Your task to perform on an android device: Open Youtube and go to the subscriptions tab Image 0: 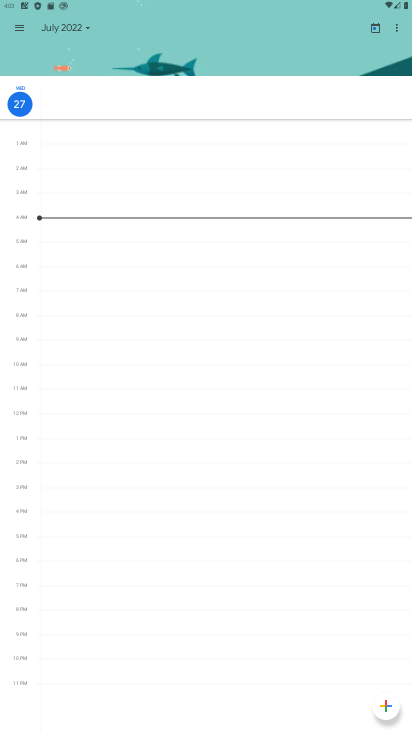
Step 0: press home button
Your task to perform on an android device: Open Youtube and go to the subscriptions tab Image 1: 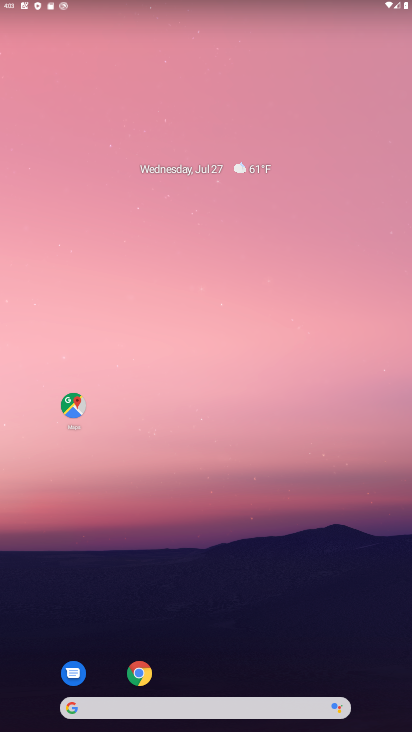
Step 1: drag from (394, 517) to (231, 9)
Your task to perform on an android device: Open Youtube and go to the subscriptions tab Image 2: 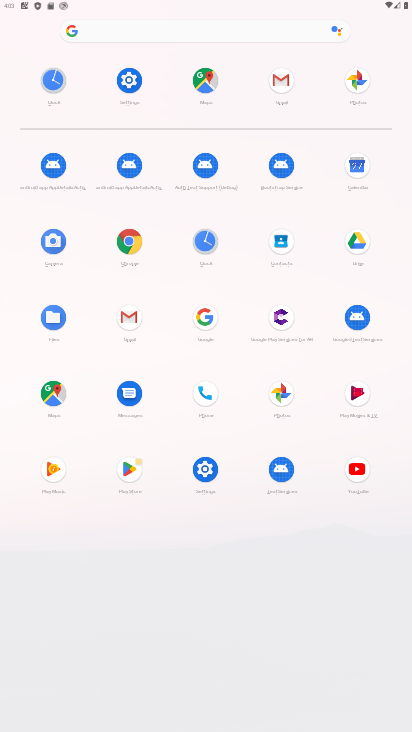
Step 2: click (353, 473)
Your task to perform on an android device: Open Youtube and go to the subscriptions tab Image 3: 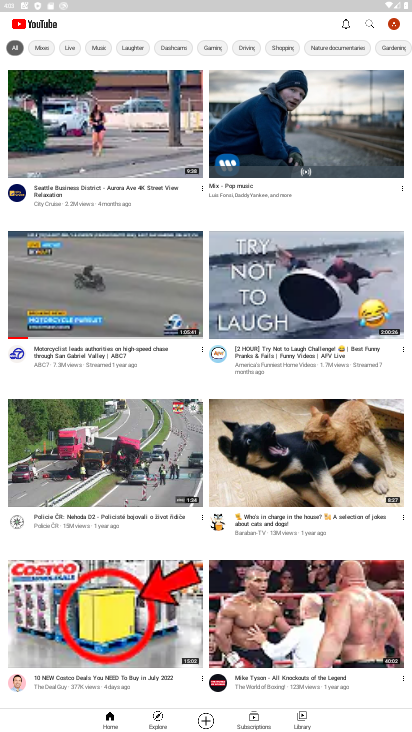
Step 3: click (259, 717)
Your task to perform on an android device: Open Youtube and go to the subscriptions tab Image 4: 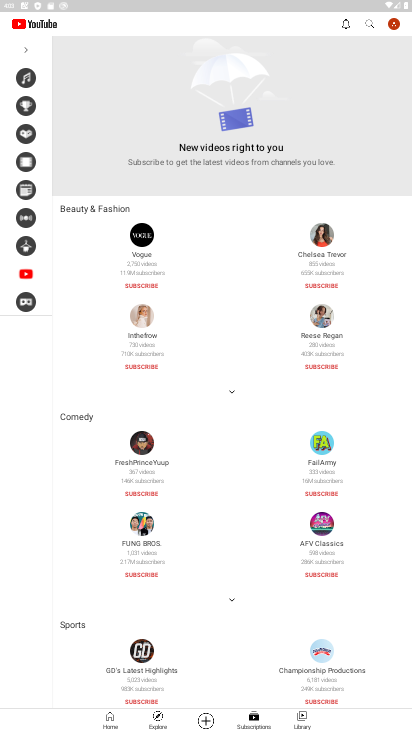
Step 4: task complete